Your task to perform on an android device: remove spam from my inbox in the gmail app Image 0: 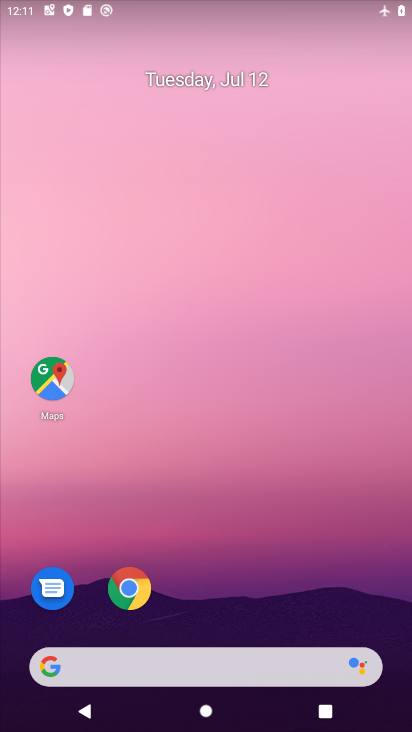
Step 0: drag from (348, 579) to (261, 137)
Your task to perform on an android device: remove spam from my inbox in the gmail app Image 1: 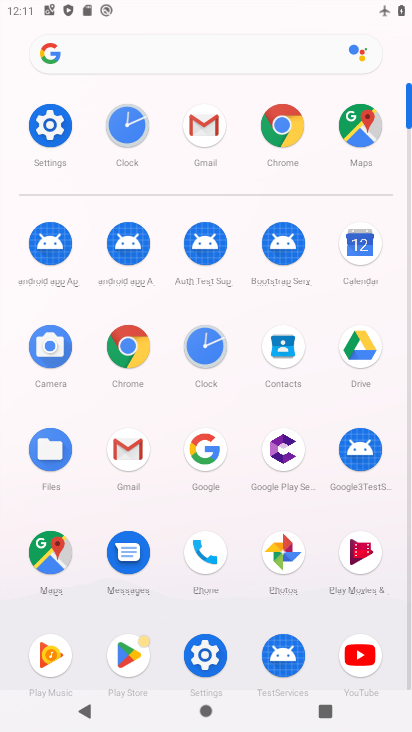
Step 1: click (128, 451)
Your task to perform on an android device: remove spam from my inbox in the gmail app Image 2: 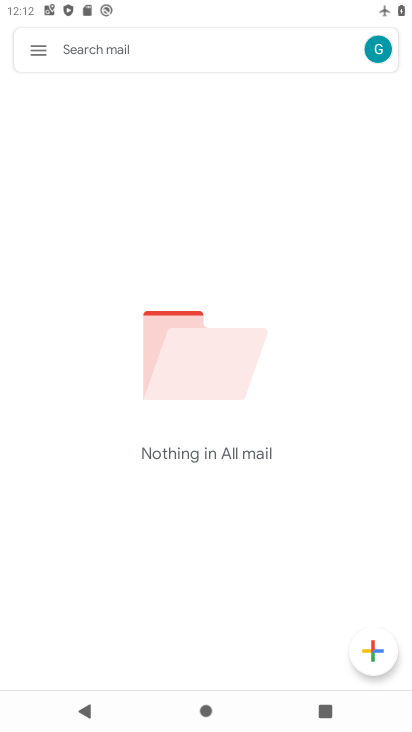
Step 2: click (42, 48)
Your task to perform on an android device: remove spam from my inbox in the gmail app Image 3: 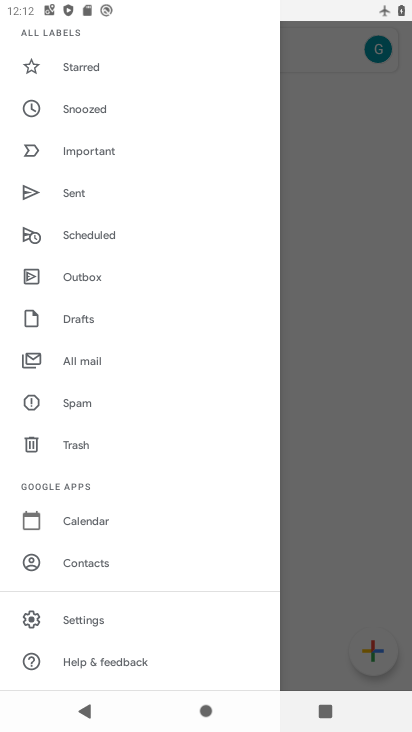
Step 3: click (72, 401)
Your task to perform on an android device: remove spam from my inbox in the gmail app Image 4: 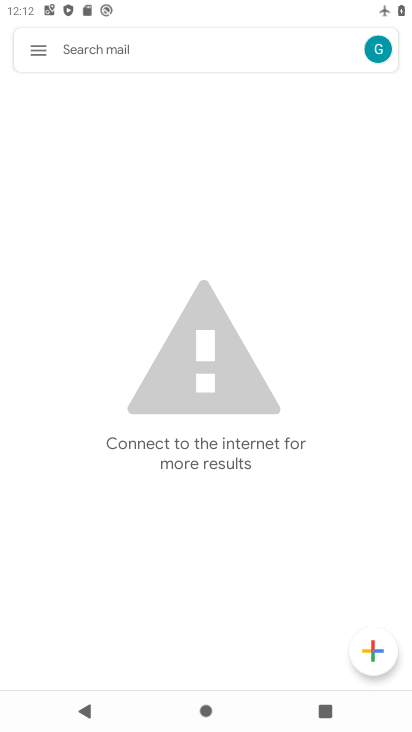
Step 4: task complete